Your task to perform on an android device: Open internet settings Image 0: 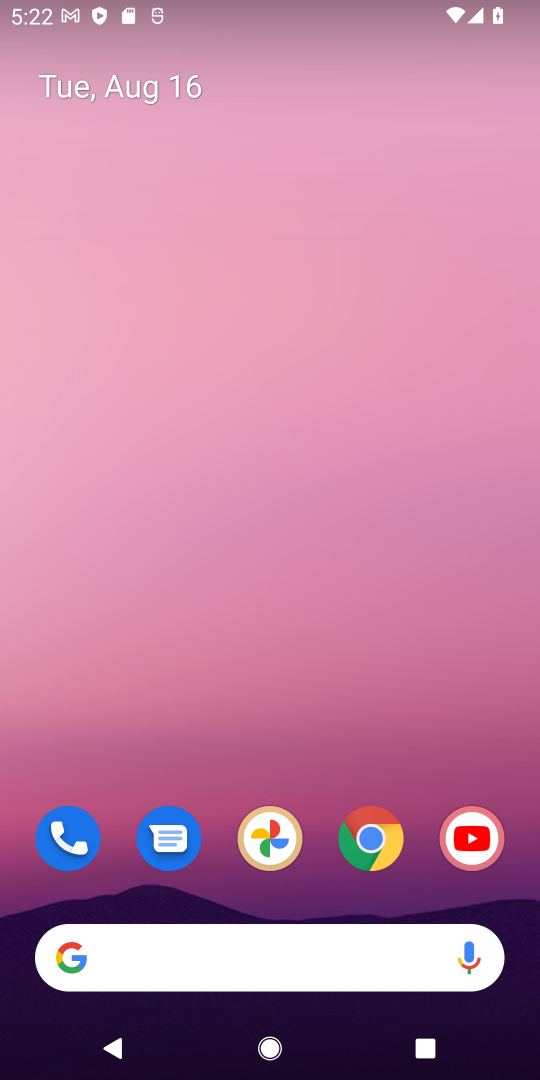
Step 0: drag from (356, 222) to (390, 89)
Your task to perform on an android device: Open internet settings Image 1: 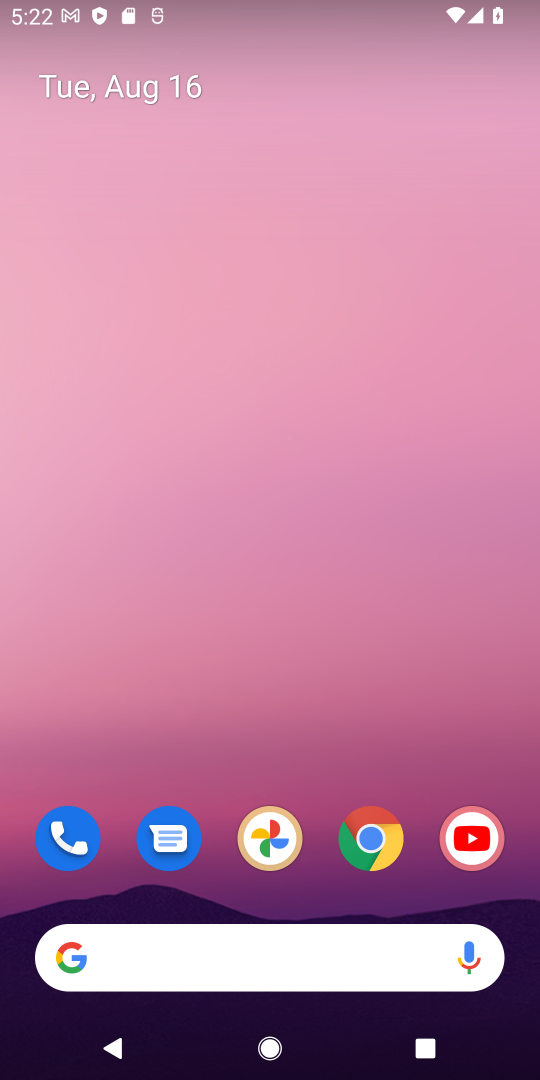
Step 1: drag from (341, 908) to (351, 12)
Your task to perform on an android device: Open internet settings Image 2: 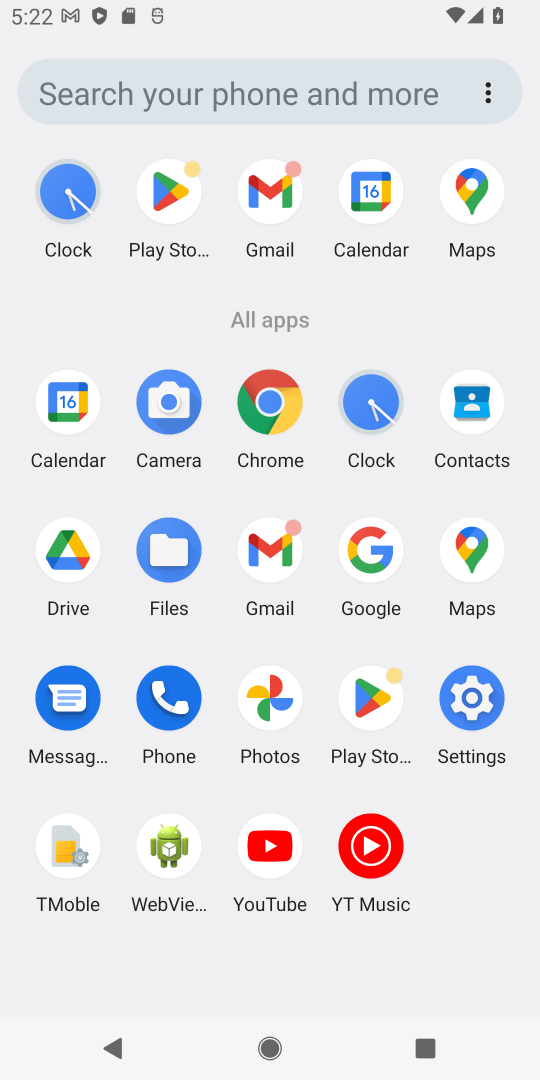
Step 2: click (469, 710)
Your task to perform on an android device: Open internet settings Image 3: 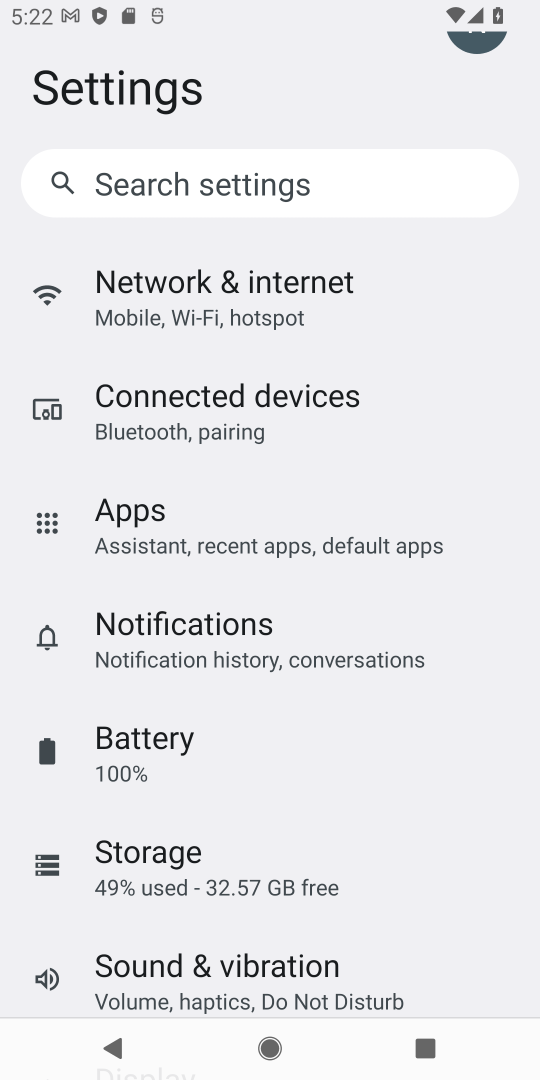
Step 3: click (236, 285)
Your task to perform on an android device: Open internet settings Image 4: 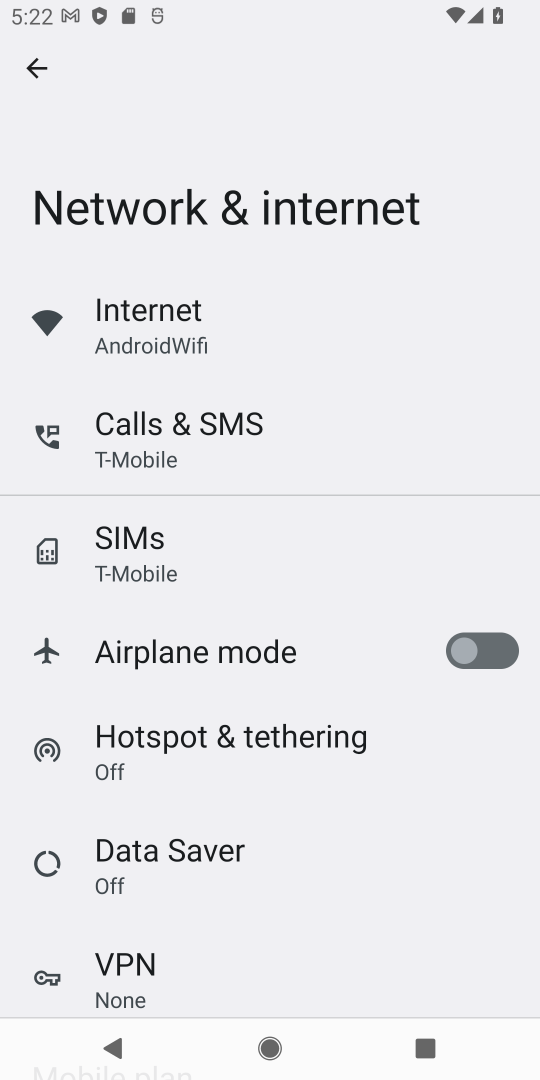
Step 4: task complete